Your task to perform on an android device: set the timer Image 0: 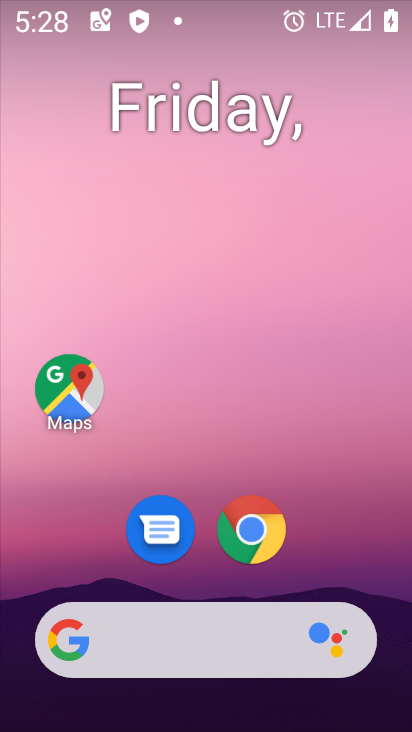
Step 0: drag from (303, 389) to (230, 26)
Your task to perform on an android device: set the timer Image 1: 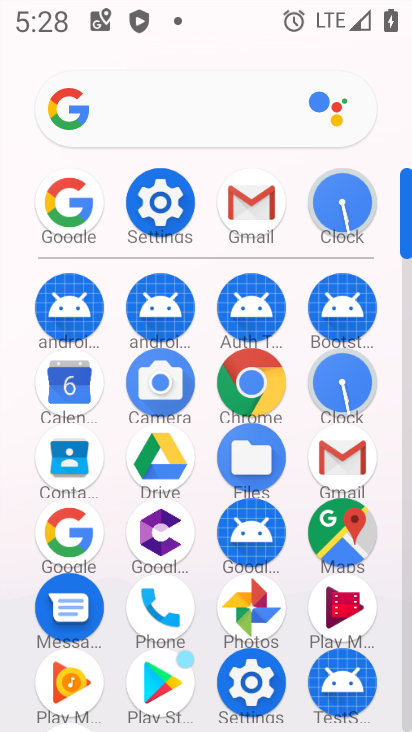
Step 1: click (347, 400)
Your task to perform on an android device: set the timer Image 2: 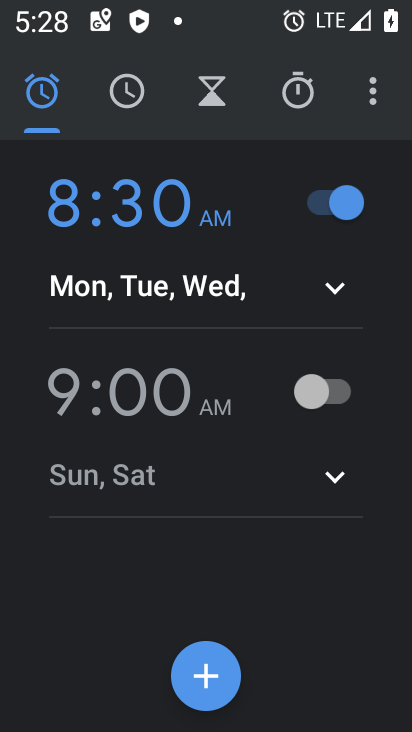
Step 2: click (205, 104)
Your task to perform on an android device: set the timer Image 3: 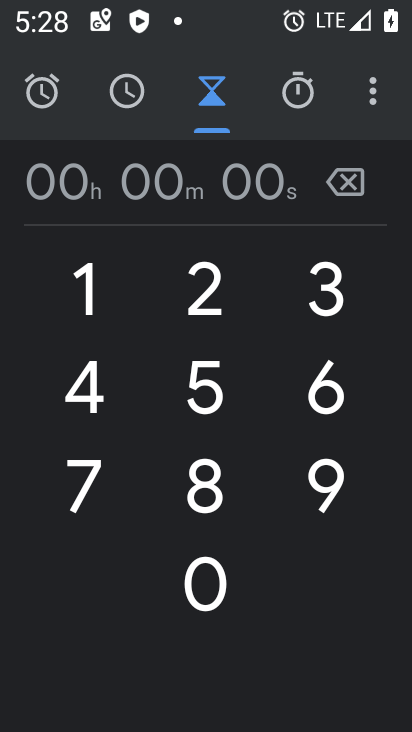
Step 3: click (94, 307)
Your task to perform on an android device: set the timer Image 4: 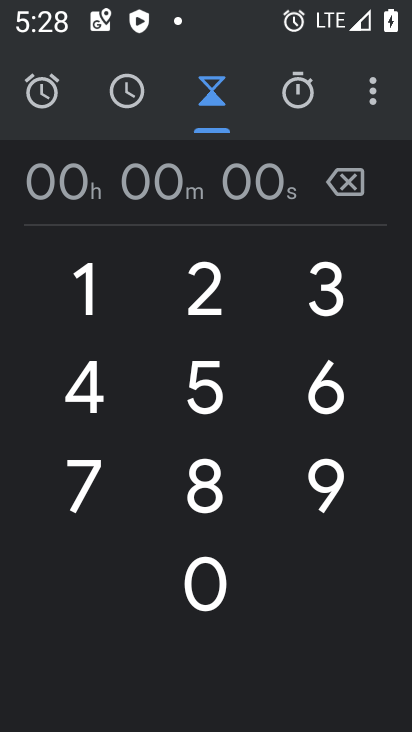
Step 4: click (94, 307)
Your task to perform on an android device: set the timer Image 5: 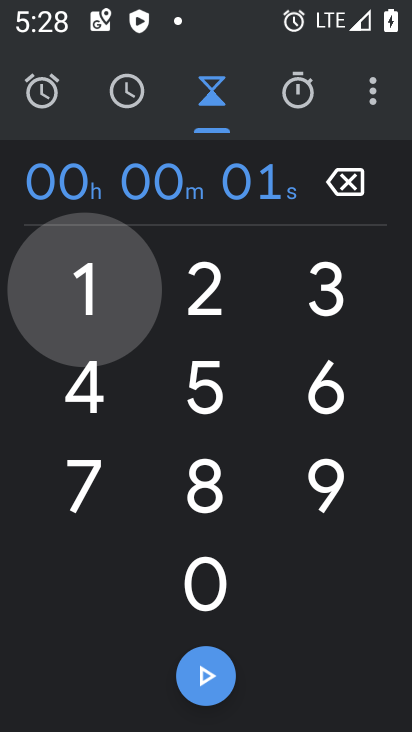
Step 5: click (94, 307)
Your task to perform on an android device: set the timer Image 6: 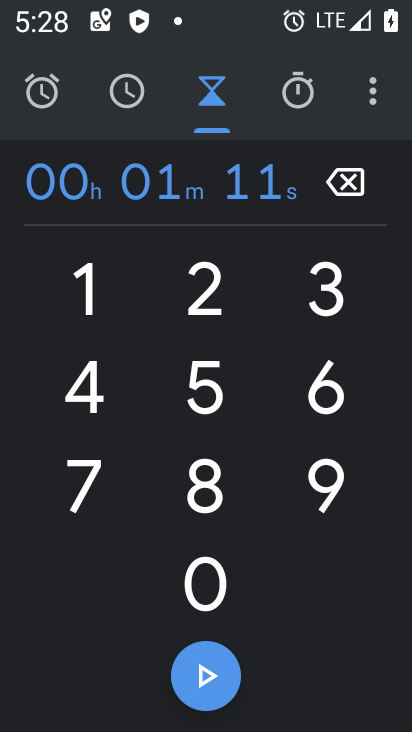
Step 6: click (80, 313)
Your task to perform on an android device: set the timer Image 7: 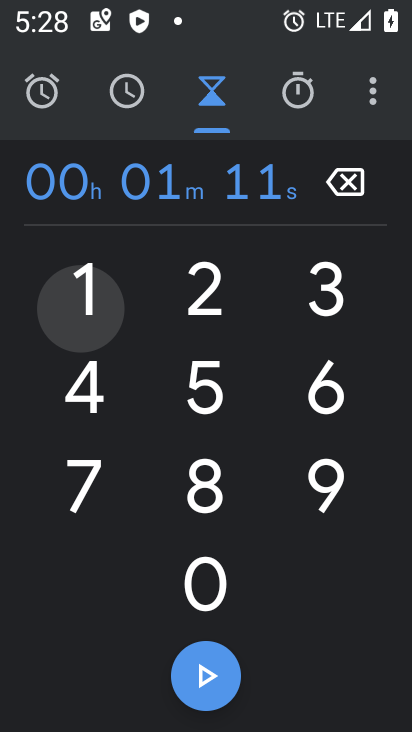
Step 7: click (80, 313)
Your task to perform on an android device: set the timer Image 8: 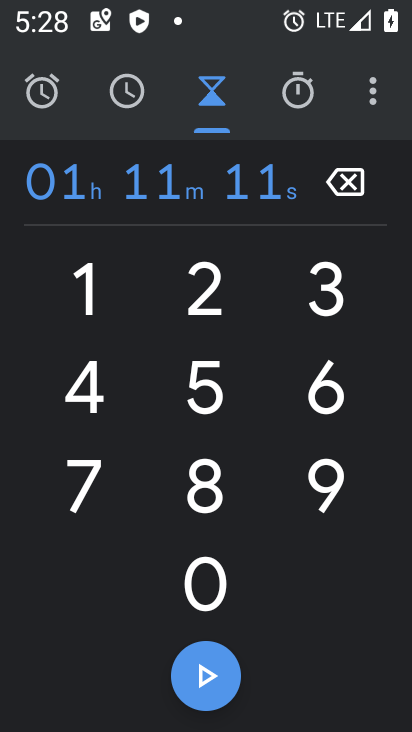
Step 8: click (91, 286)
Your task to perform on an android device: set the timer Image 9: 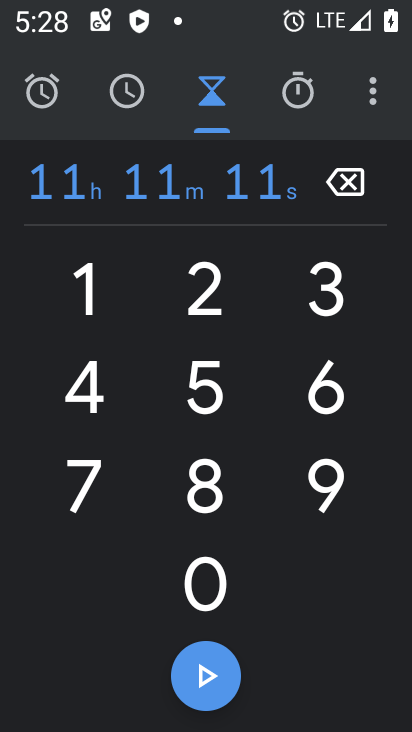
Step 9: click (211, 677)
Your task to perform on an android device: set the timer Image 10: 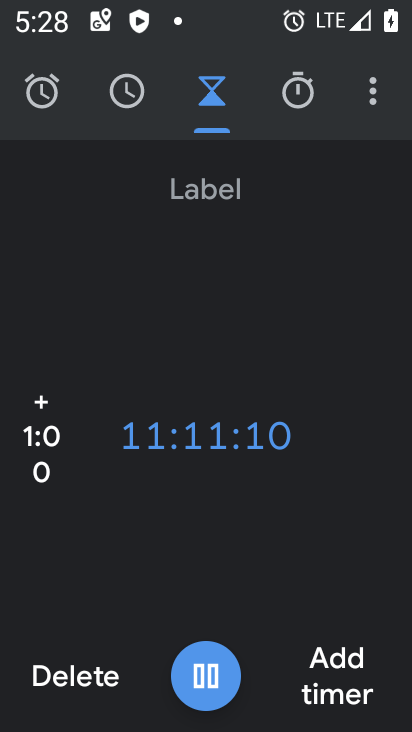
Step 10: task complete